Your task to perform on an android device: Go to calendar. Show me events next week Image 0: 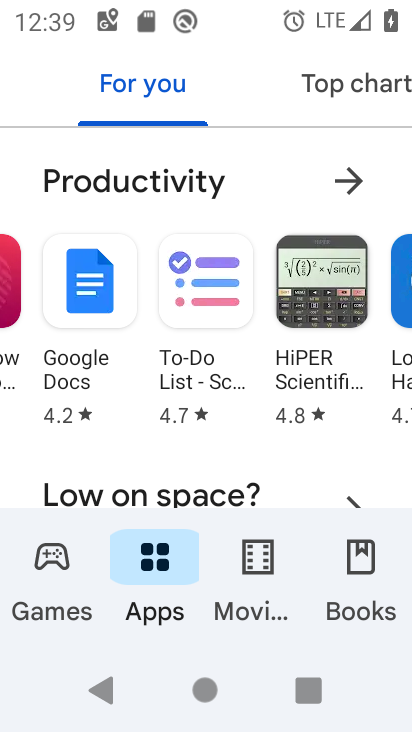
Step 0: press back button
Your task to perform on an android device: Go to calendar. Show me events next week Image 1: 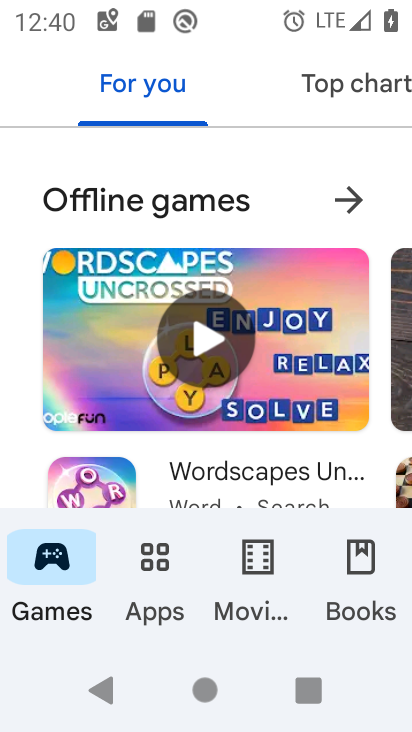
Step 1: press home button
Your task to perform on an android device: Go to calendar. Show me events next week Image 2: 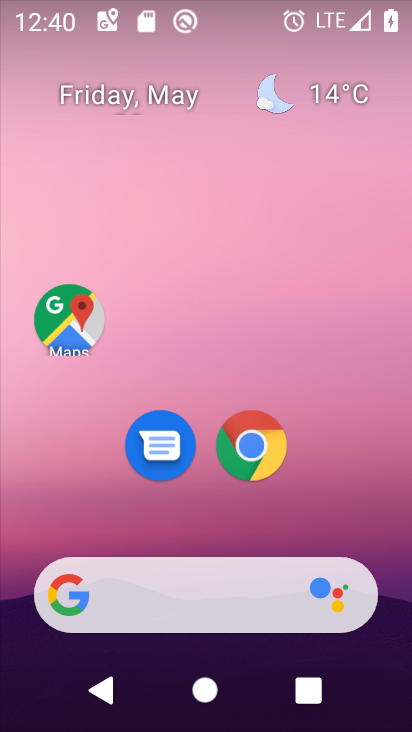
Step 2: drag from (53, 495) to (239, 161)
Your task to perform on an android device: Go to calendar. Show me events next week Image 3: 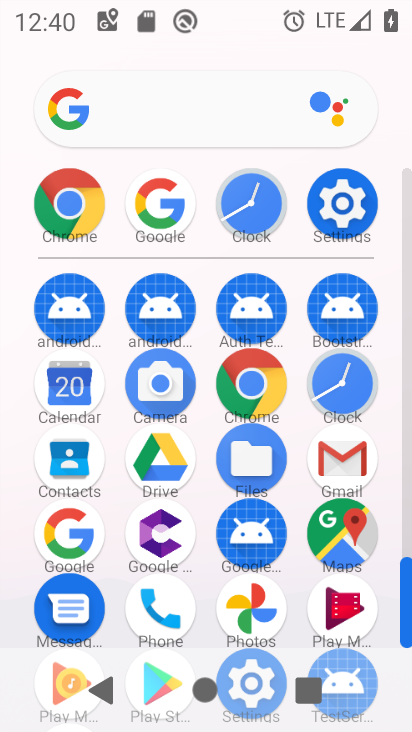
Step 3: click (85, 393)
Your task to perform on an android device: Go to calendar. Show me events next week Image 4: 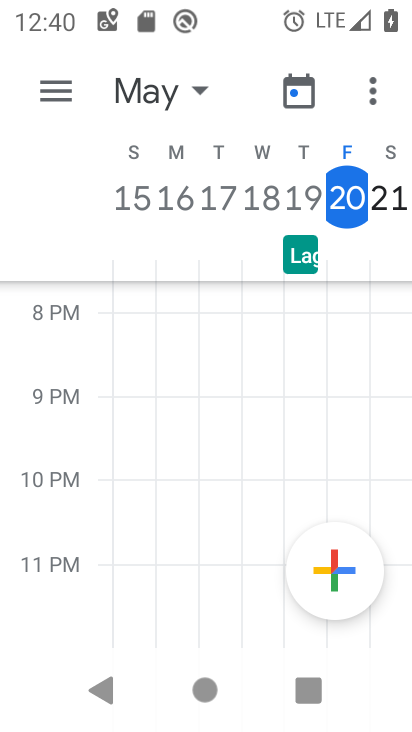
Step 4: click (85, 393)
Your task to perform on an android device: Go to calendar. Show me events next week Image 5: 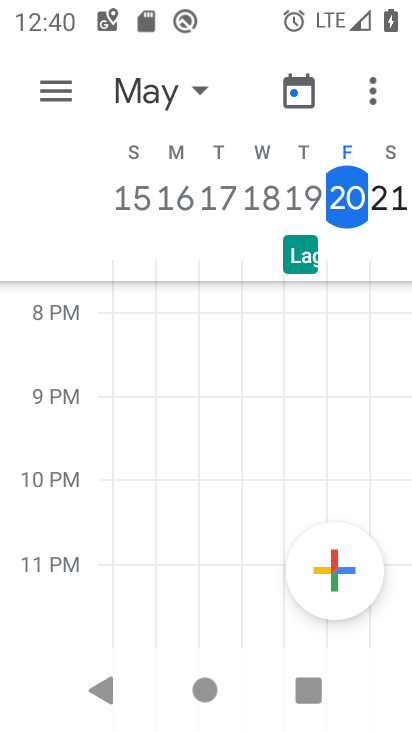
Step 5: click (85, 393)
Your task to perform on an android device: Go to calendar. Show me events next week Image 6: 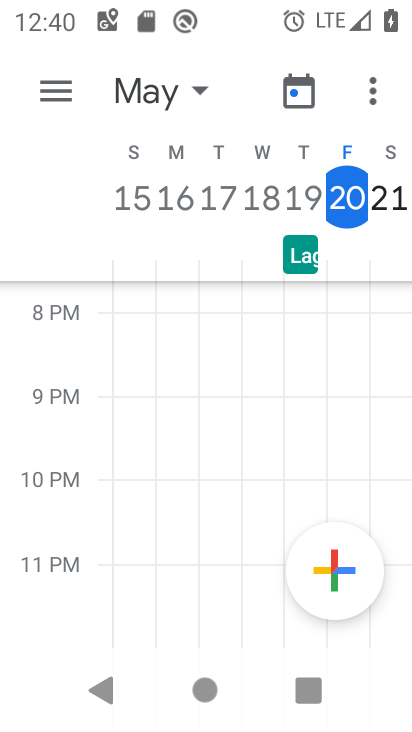
Step 6: click (85, 395)
Your task to perform on an android device: Go to calendar. Show me events next week Image 7: 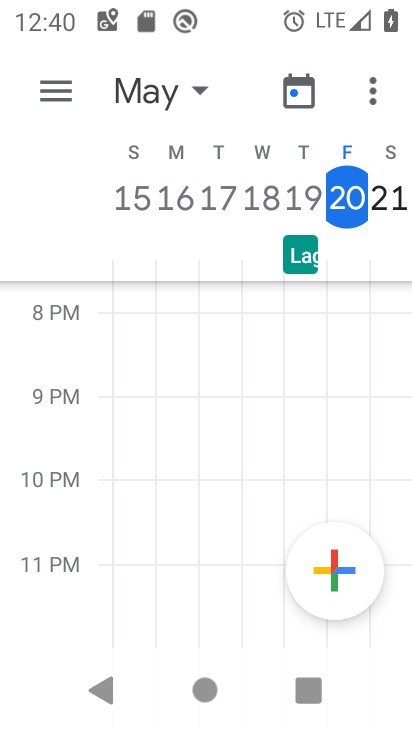
Step 7: press home button
Your task to perform on an android device: Go to calendar. Show me events next week Image 8: 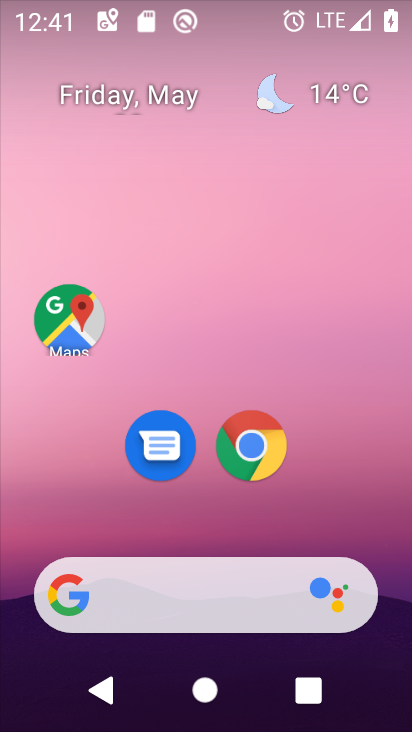
Step 8: drag from (42, 560) to (251, 136)
Your task to perform on an android device: Go to calendar. Show me events next week Image 9: 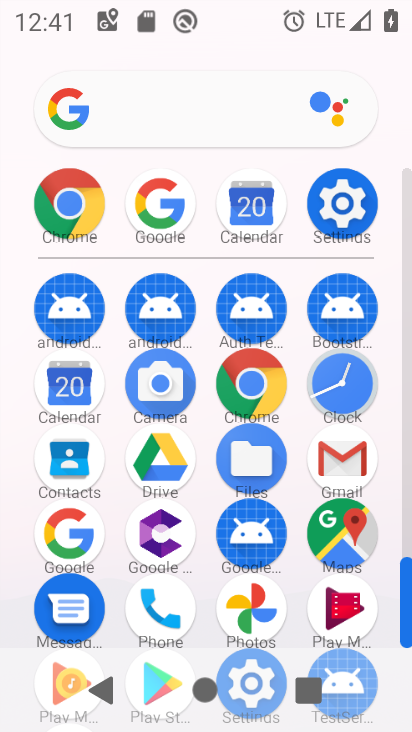
Step 9: click (48, 403)
Your task to perform on an android device: Go to calendar. Show me events next week Image 10: 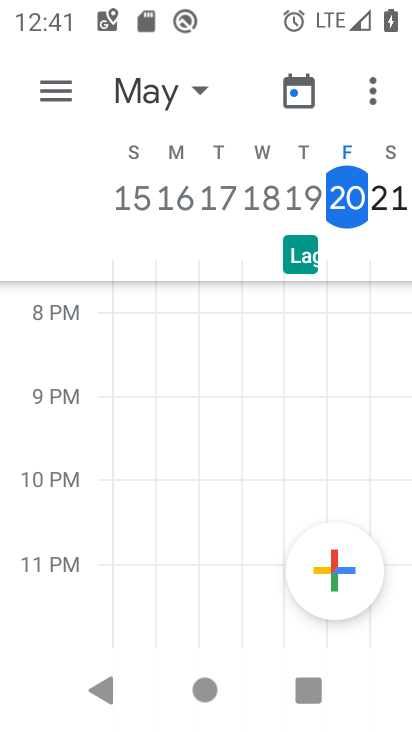
Step 10: click (182, 94)
Your task to perform on an android device: Go to calendar. Show me events next week Image 11: 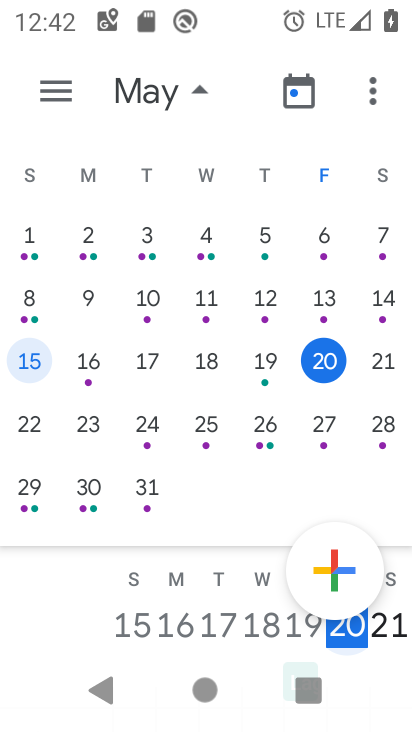
Step 11: click (56, 93)
Your task to perform on an android device: Go to calendar. Show me events next week Image 12: 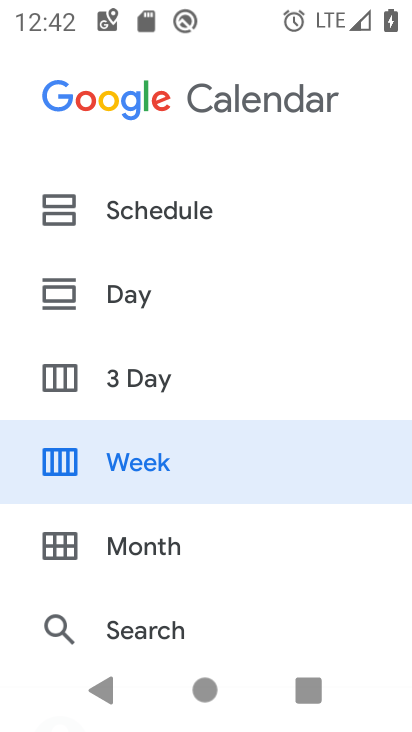
Step 12: task complete